Your task to perform on an android device: turn on translation in the chrome app Image 0: 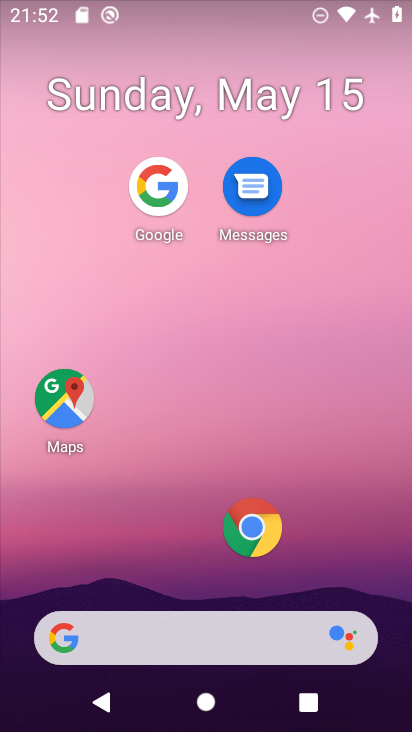
Step 0: click (263, 547)
Your task to perform on an android device: turn on translation in the chrome app Image 1: 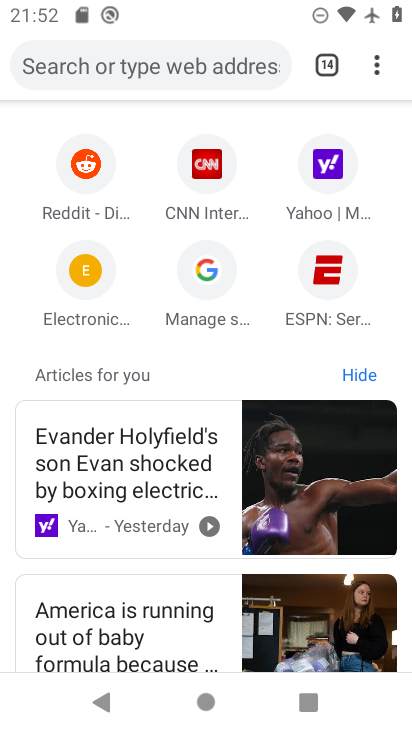
Step 1: drag from (377, 70) to (179, 546)
Your task to perform on an android device: turn on translation in the chrome app Image 2: 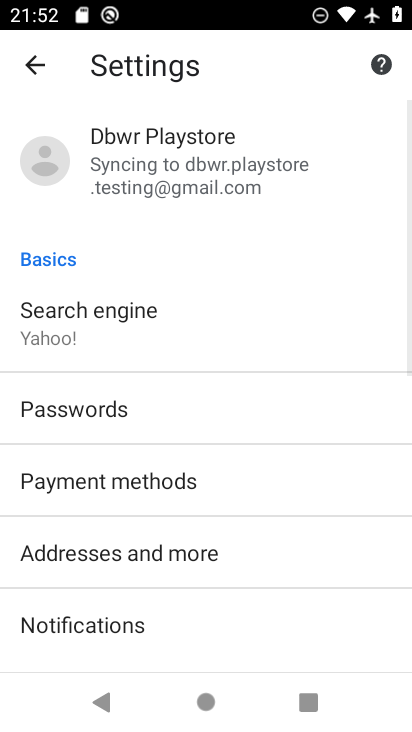
Step 2: drag from (176, 610) to (369, 88)
Your task to perform on an android device: turn on translation in the chrome app Image 3: 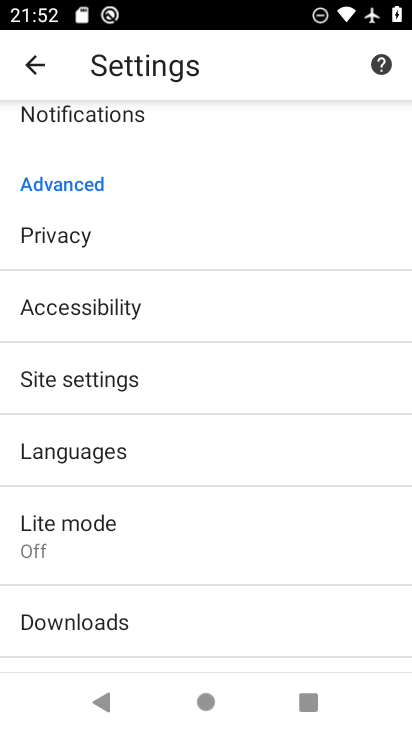
Step 3: click (92, 454)
Your task to perform on an android device: turn on translation in the chrome app Image 4: 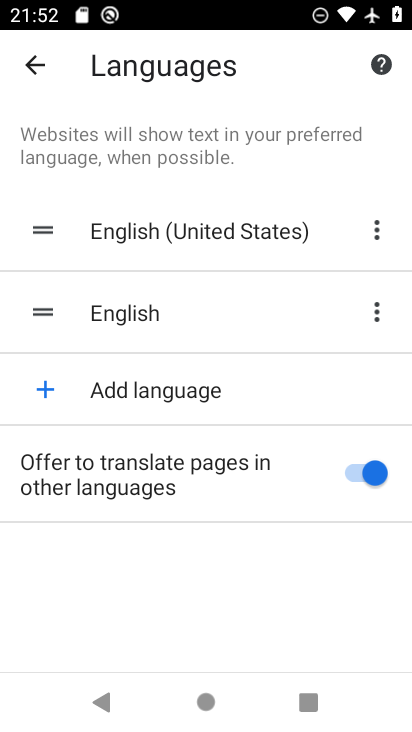
Step 4: task complete